Your task to perform on an android device: Do I have any events this weekend? Image 0: 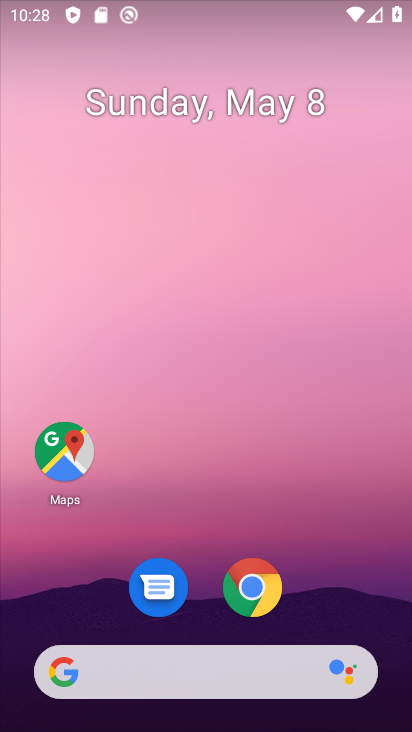
Step 0: drag from (293, 570) to (408, 255)
Your task to perform on an android device: Do I have any events this weekend? Image 1: 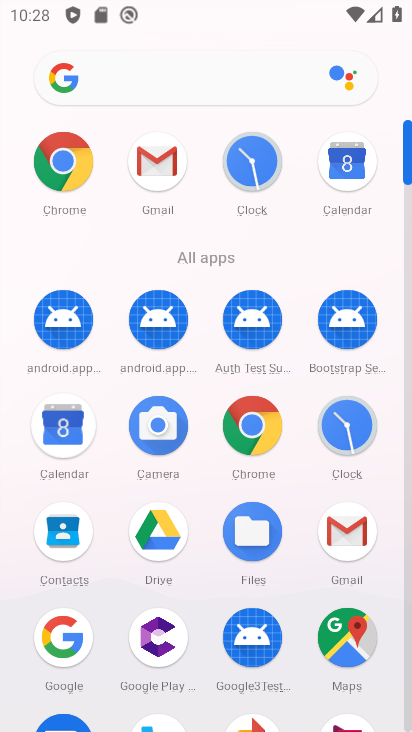
Step 1: click (58, 433)
Your task to perform on an android device: Do I have any events this weekend? Image 2: 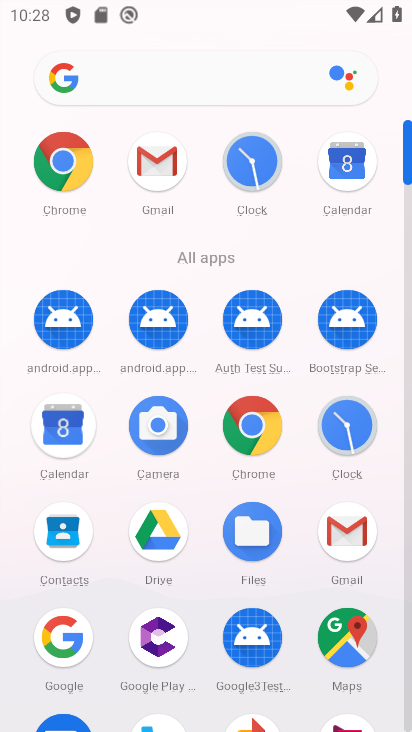
Step 2: click (58, 433)
Your task to perform on an android device: Do I have any events this weekend? Image 3: 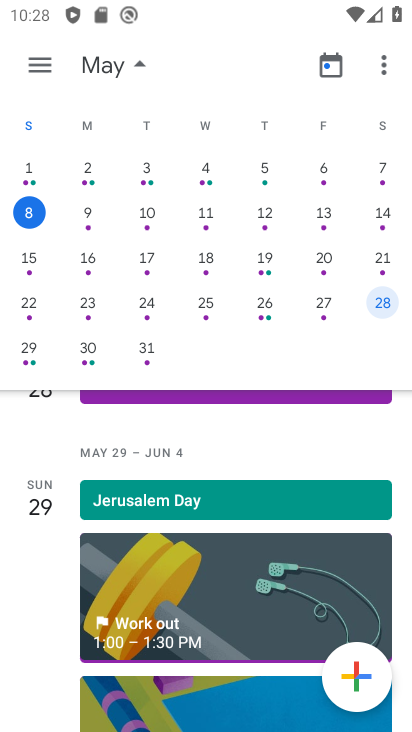
Step 3: click (59, 432)
Your task to perform on an android device: Do I have any events this weekend? Image 4: 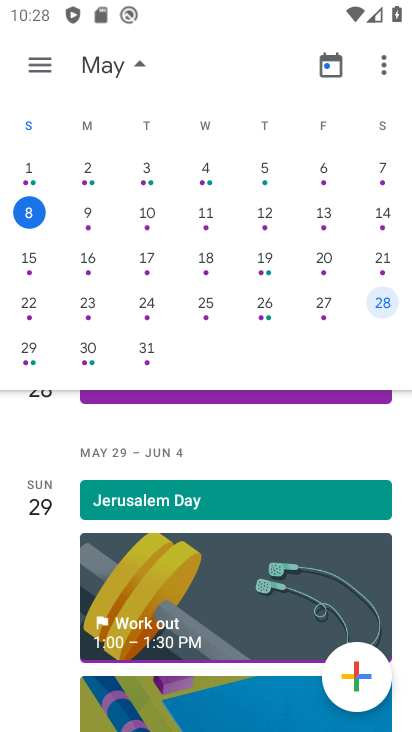
Step 4: click (63, 430)
Your task to perform on an android device: Do I have any events this weekend? Image 5: 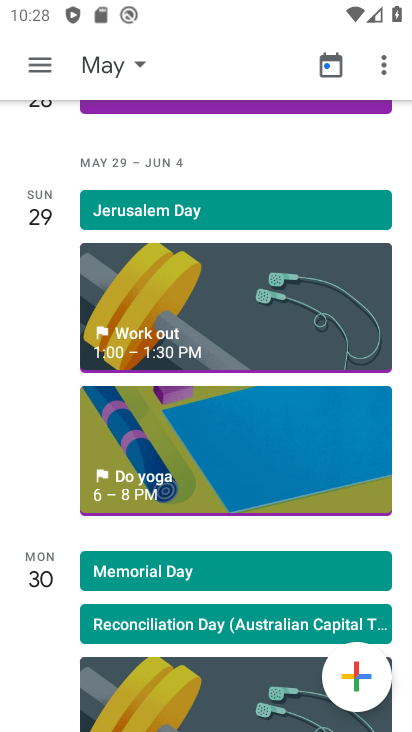
Step 5: click (135, 54)
Your task to perform on an android device: Do I have any events this weekend? Image 6: 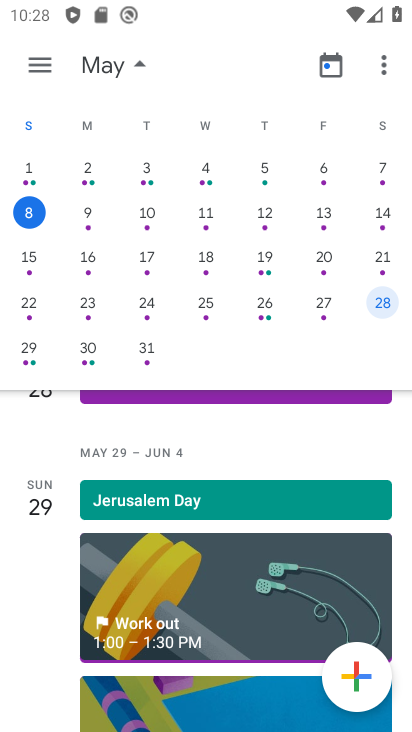
Step 6: drag from (196, 534) to (149, 133)
Your task to perform on an android device: Do I have any events this weekend? Image 7: 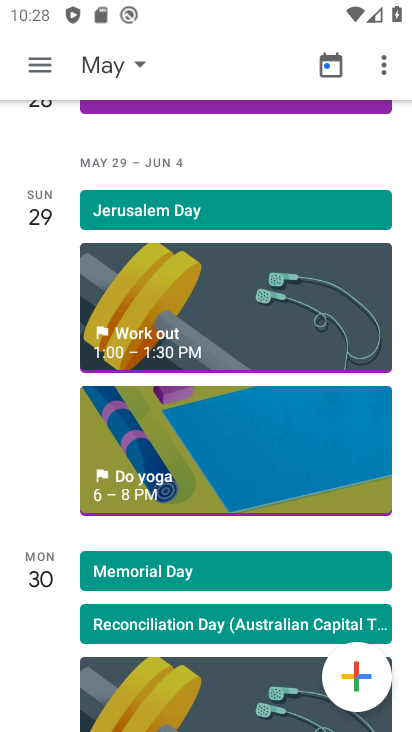
Step 7: drag from (159, 302) to (212, 650)
Your task to perform on an android device: Do I have any events this weekend? Image 8: 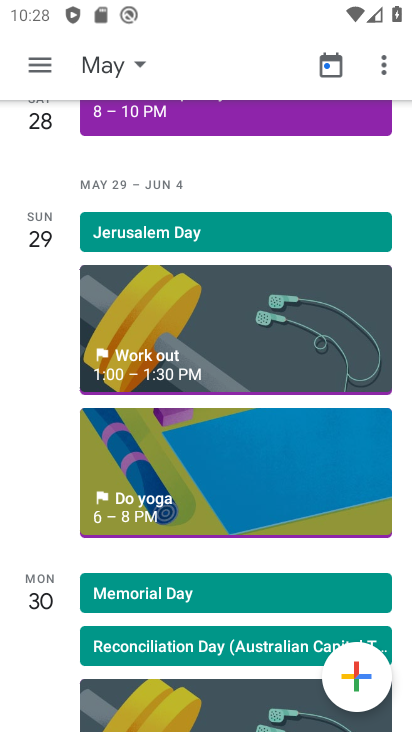
Step 8: drag from (177, 305) to (219, 522)
Your task to perform on an android device: Do I have any events this weekend? Image 9: 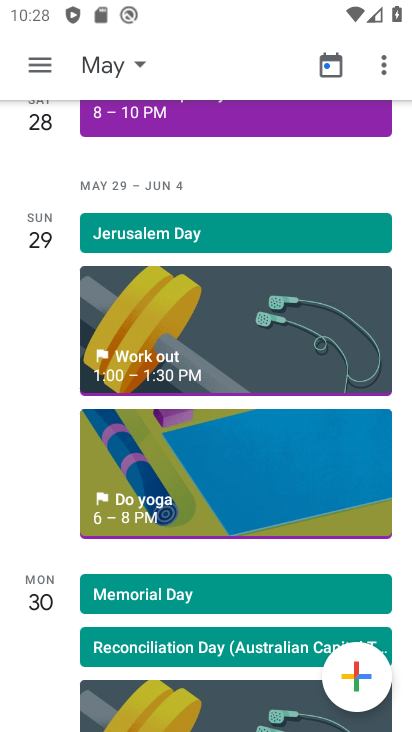
Step 9: drag from (164, 269) to (219, 546)
Your task to perform on an android device: Do I have any events this weekend? Image 10: 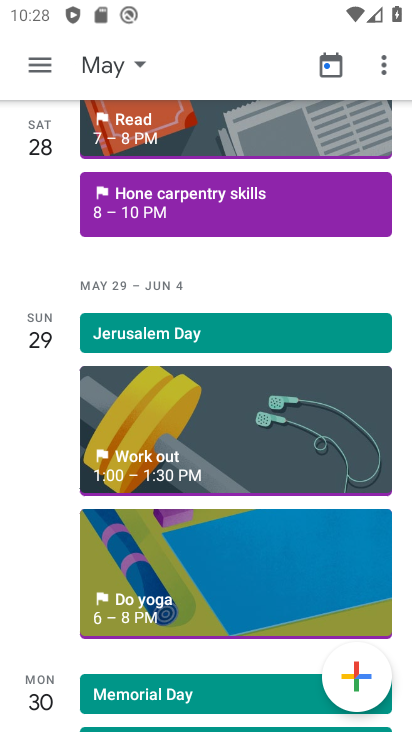
Step 10: drag from (196, 256) to (196, 547)
Your task to perform on an android device: Do I have any events this weekend? Image 11: 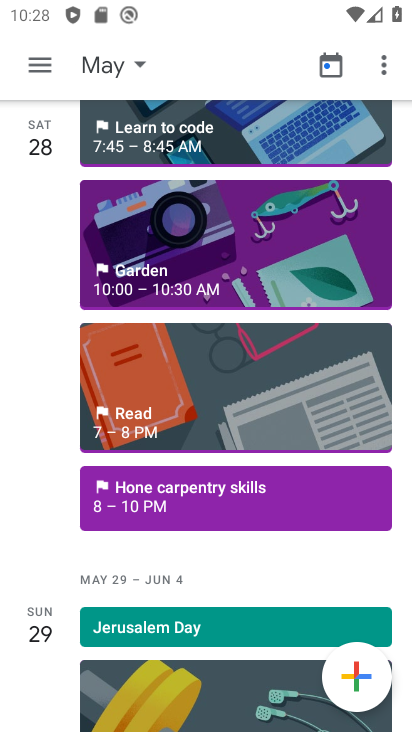
Step 11: drag from (146, 265) to (185, 545)
Your task to perform on an android device: Do I have any events this weekend? Image 12: 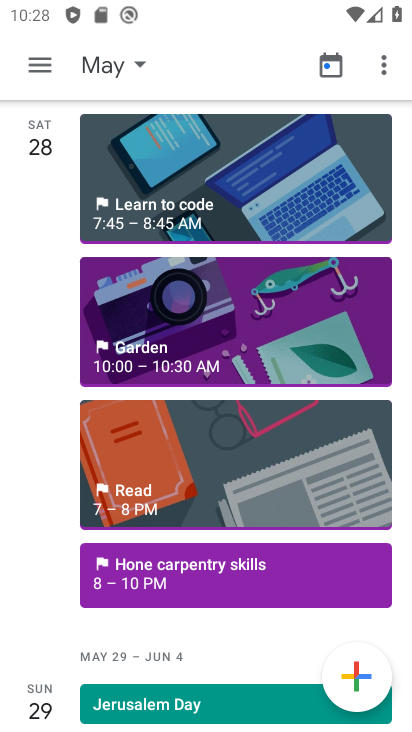
Step 12: drag from (181, 352) to (245, 600)
Your task to perform on an android device: Do I have any events this weekend? Image 13: 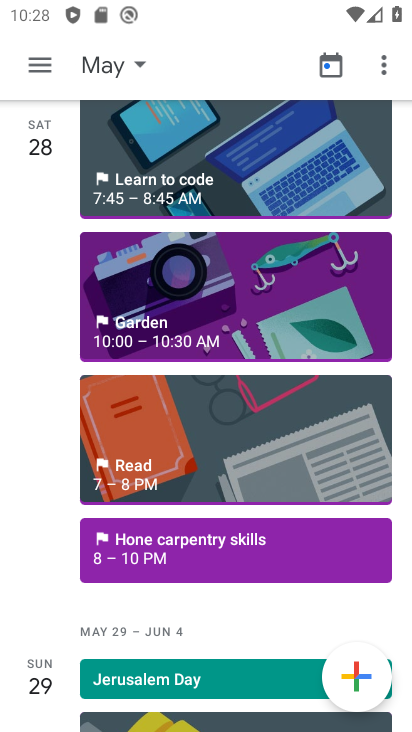
Step 13: drag from (146, 477) to (146, 402)
Your task to perform on an android device: Do I have any events this weekend? Image 14: 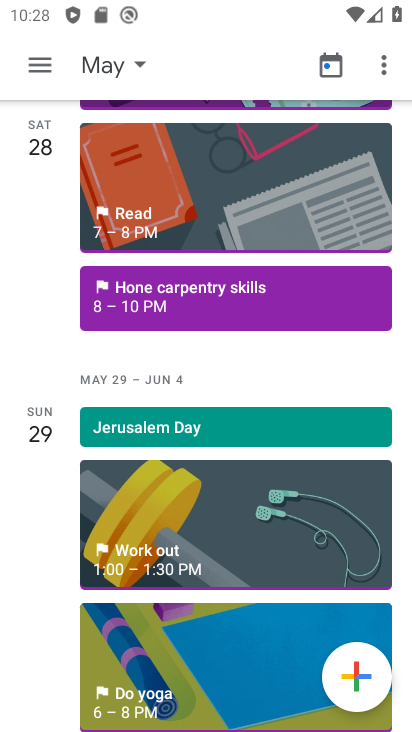
Step 14: drag from (152, 264) to (101, 446)
Your task to perform on an android device: Do I have any events this weekend? Image 15: 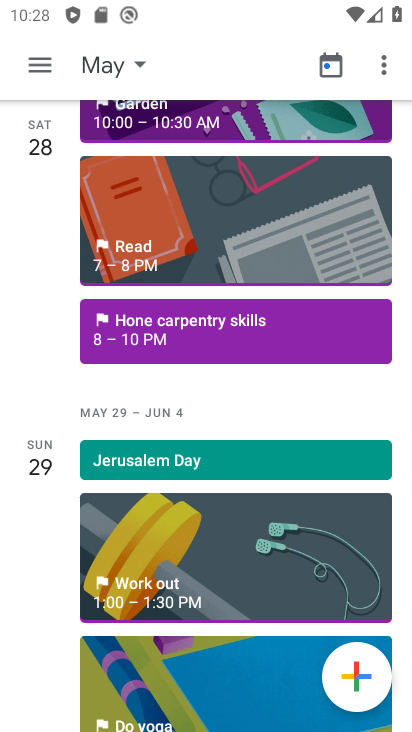
Step 15: drag from (120, 439) to (323, 505)
Your task to perform on an android device: Do I have any events this weekend? Image 16: 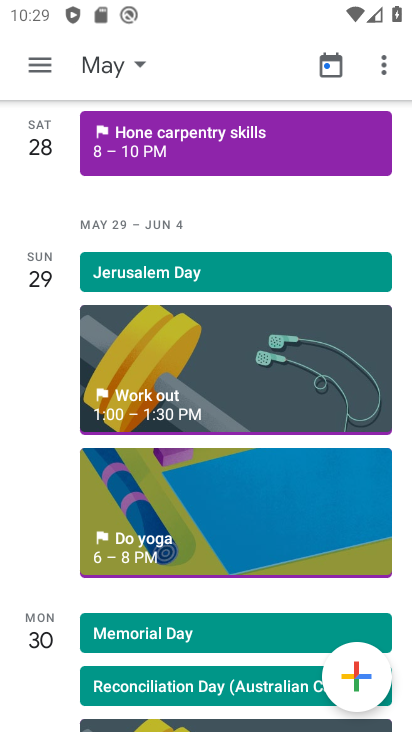
Step 16: drag from (265, 235) to (325, 670)
Your task to perform on an android device: Do I have any events this weekend? Image 17: 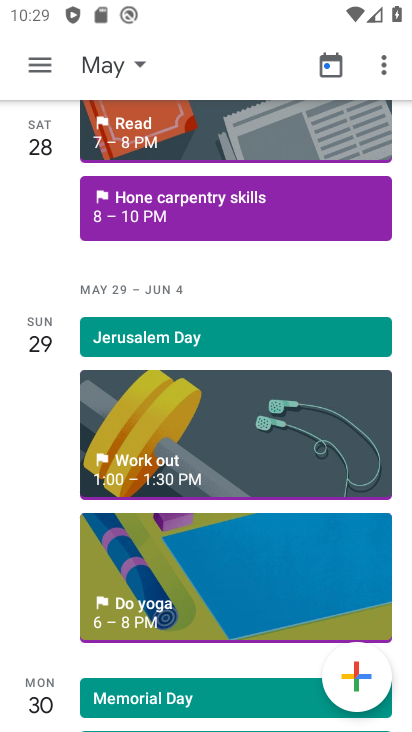
Step 17: drag from (243, 380) to (235, 719)
Your task to perform on an android device: Do I have any events this weekend? Image 18: 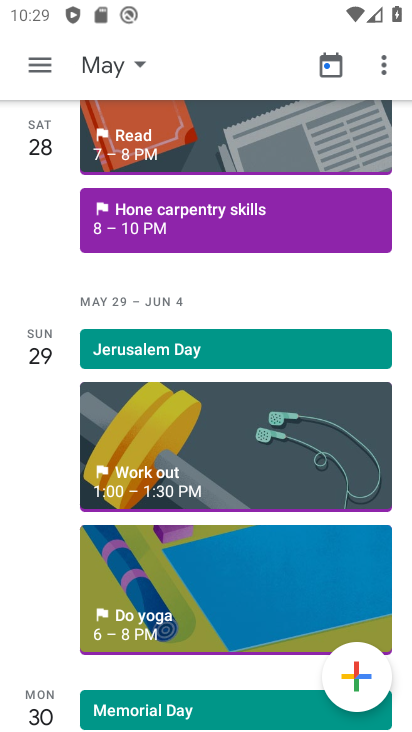
Step 18: click (128, 58)
Your task to perform on an android device: Do I have any events this weekend? Image 19: 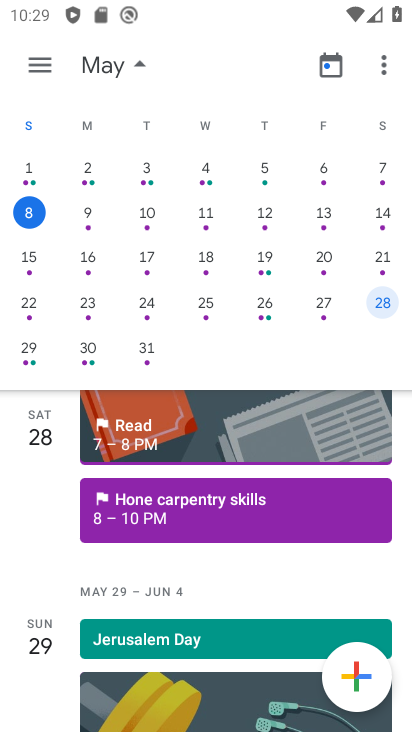
Step 19: click (374, 208)
Your task to perform on an android device: Do I have any events this weekend? Image 20: 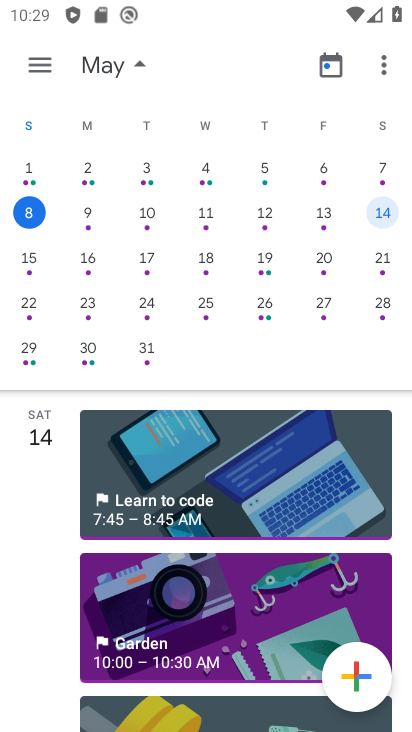
Step 20: click (374, 208)
Your task to perform on an android device: Do I have any events this weekend? Image 21: 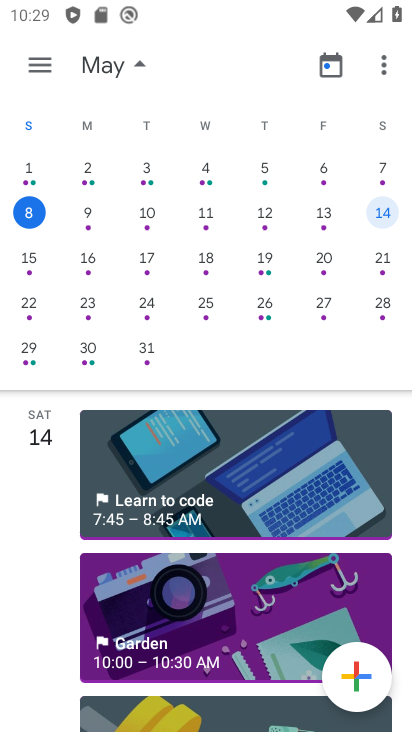
Step 21: click (374, 208)
Your task to perform on an android device: Do I have any events this weekend? Image 22: 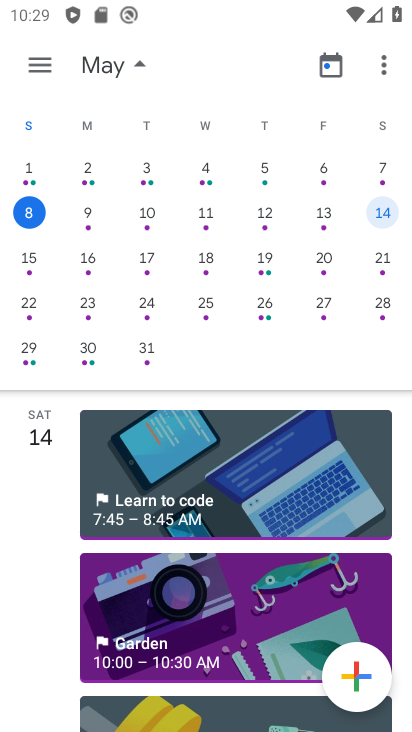
Step 22: click (375, 208)
Your task to perform on an android device: Do I have any events this weekend? Image 23: 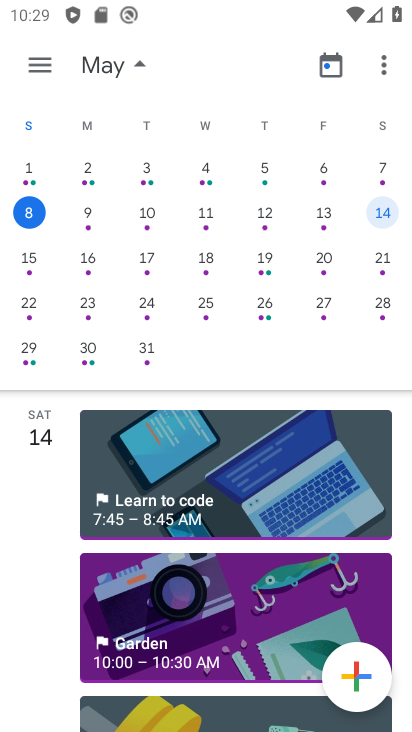
Step 23: click (375, 208)
Your task to perform on an android device: Do I have any events this weekend? Image 24: 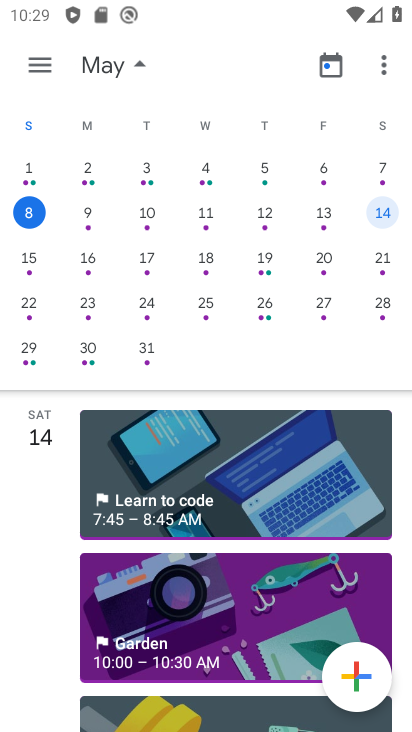
Step 24: click (375, 208)
Your task to perform on an android device: Do I have any events this weekend? Image 25: 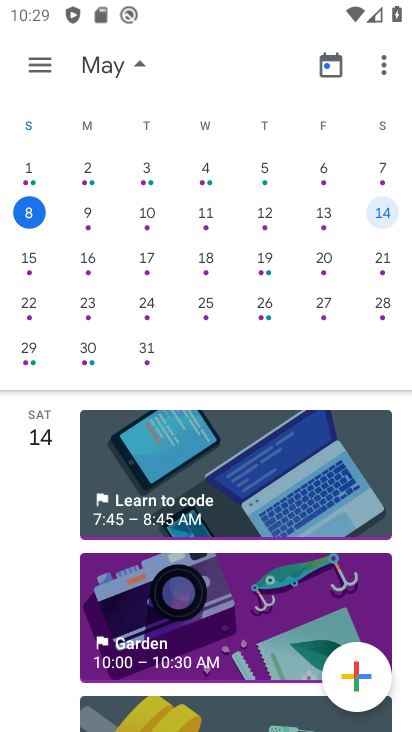
Step 25: click (375, 208)
Your task to perform on an android device: Do I have any events this weekend? Image 26: 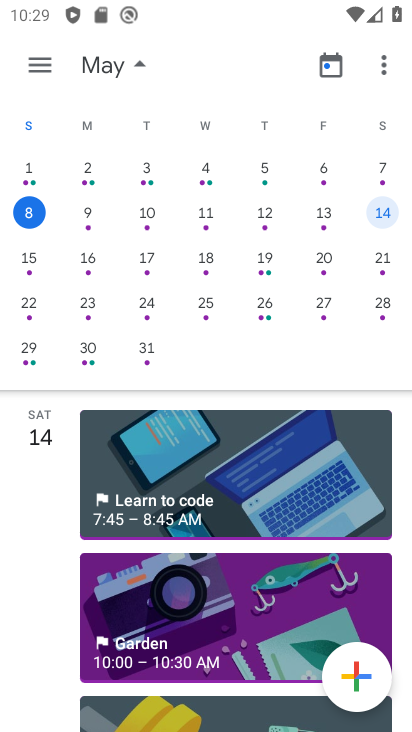
Step 26: click (382, 203)
Your task to perform on an android device: Do I have any events this weekend? Image 27: 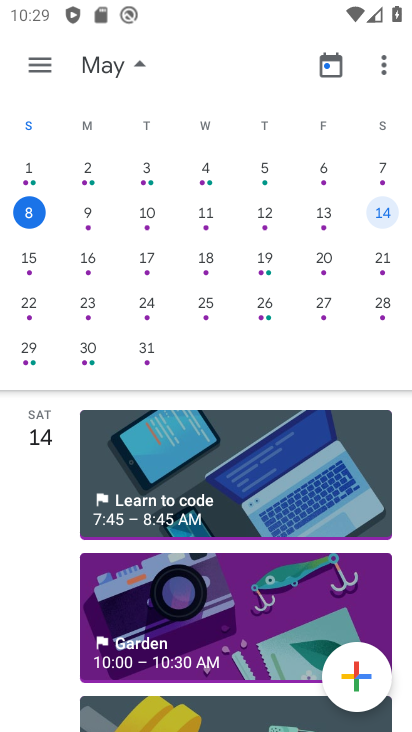
Step 27: click (382, 203)
Your task to perform on an android device: Do I have any events this weekend? Image 28: 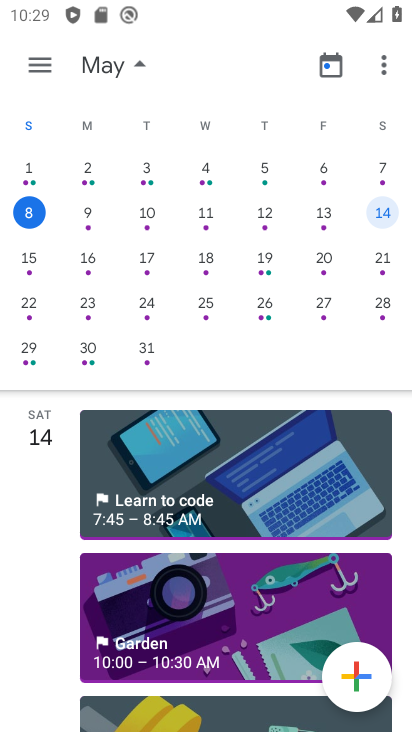
Step 28: click (382, 203)
Your task to perform on an android device: Do I have any events this weekend? Image 29: 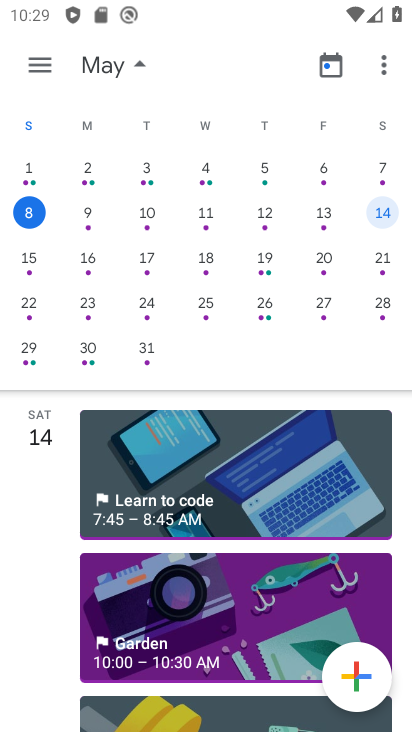
Step 29: click (382, 203)
Your task to perform on an android device: Do I have any events this weekend? Image 30: 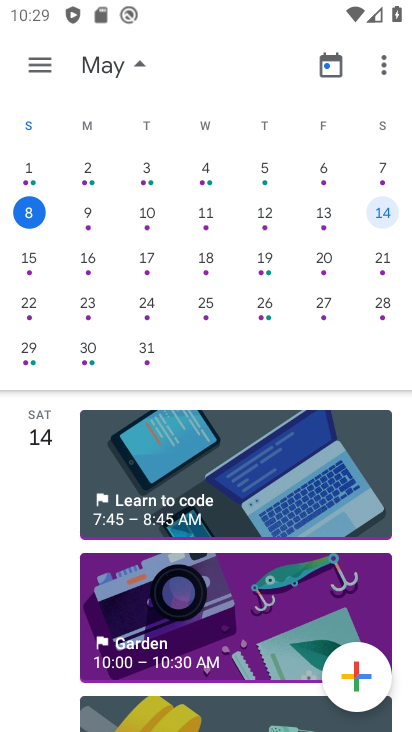
Step 30: task complete